Your task to perform on an android device: change notifications settings Image 0: 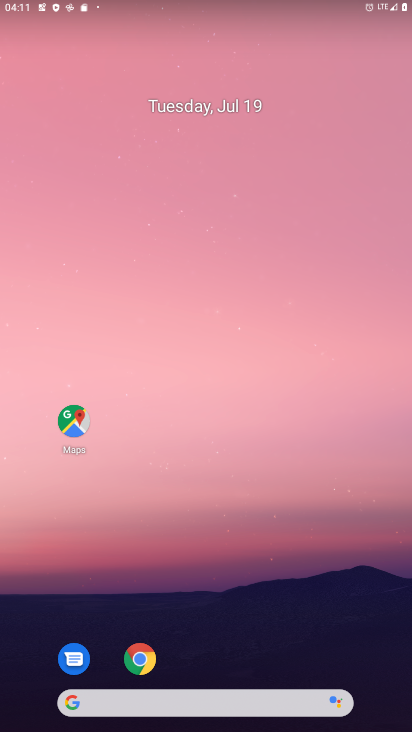
Step 0: press home button
Your task to perform on an android device: change notifications settings Image 1: 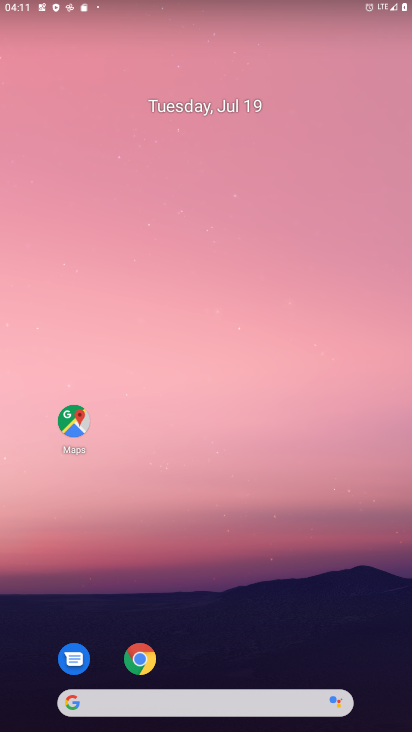
Step 1: drag from (343, 587) to (343, 20)
Your task to perform on an android device: change notifications settings Image 2: 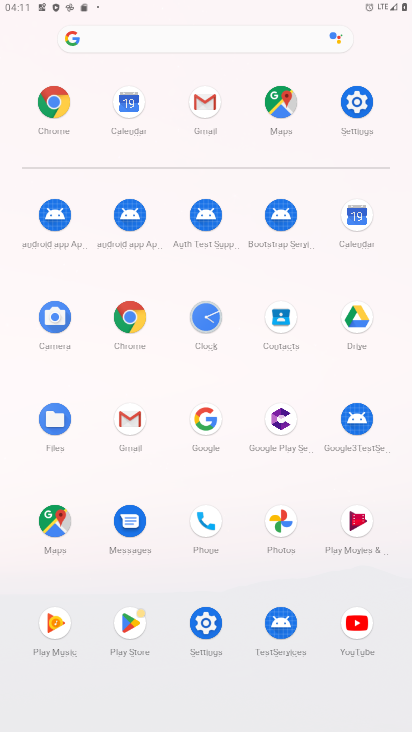
Step 2: click (198, 616)
Your task to perform on an android device: change notifications settings Image 3: 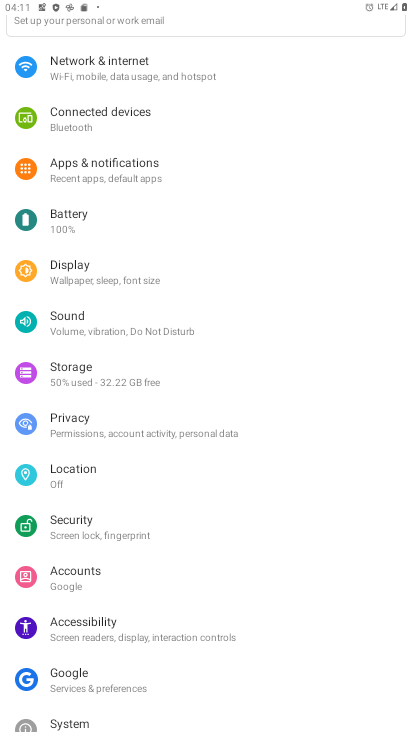
Step 3: click (53, 189)
Your task to perform on an android device: change notifications settings Image 4: 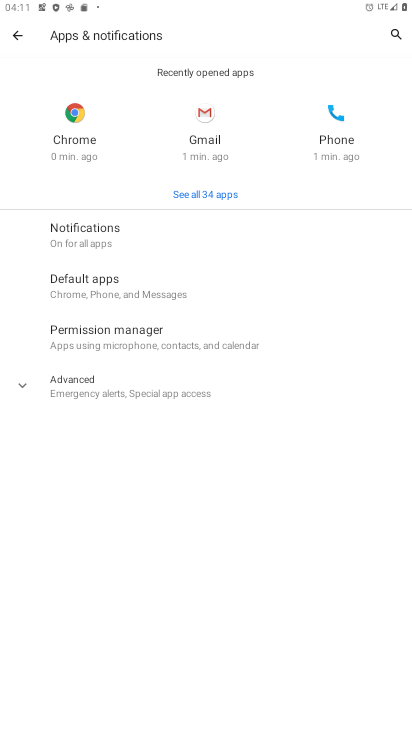
Step 4: click (82, 249)
Your task to perform on an android device: change notifications settings Image 5: 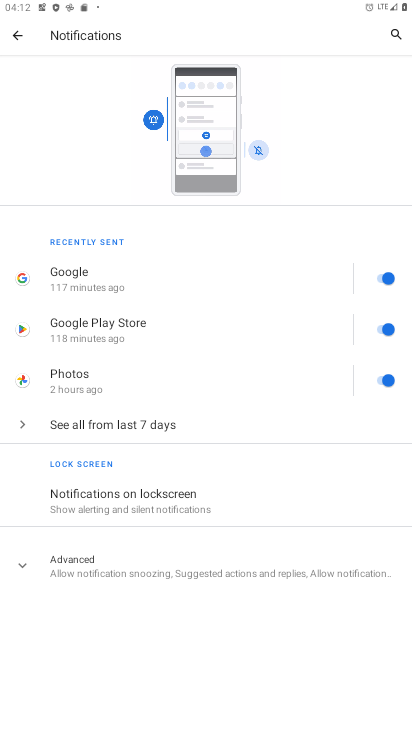
Step 5: click (51, 111)
Your task to perform on an android device: change notifications settings Image 6: 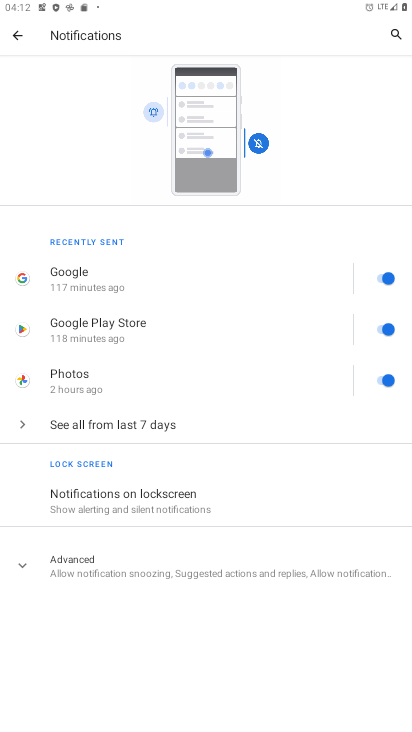
Step 6: click (150, 644)
Your task to perform on an android device: change notifications settings Image 7: 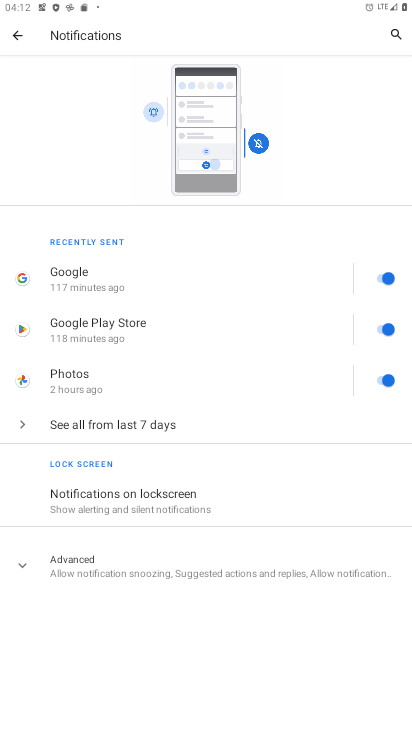
Step 7: click (125, 614)
Your task to perform on an android device: change notifications settings Image 8: 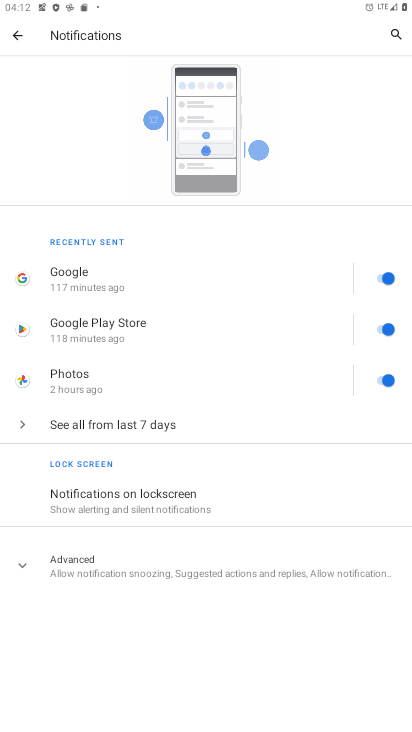
Step 8: click (151, 566)
Your task to perform on an android device: change notifications settings Image 9: 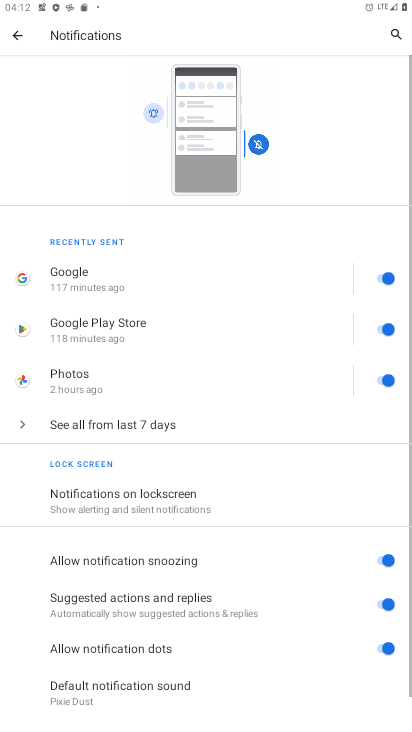
Step 9: click (159, 566)
Your task to perform on an android device: change notifications settings Image 10: 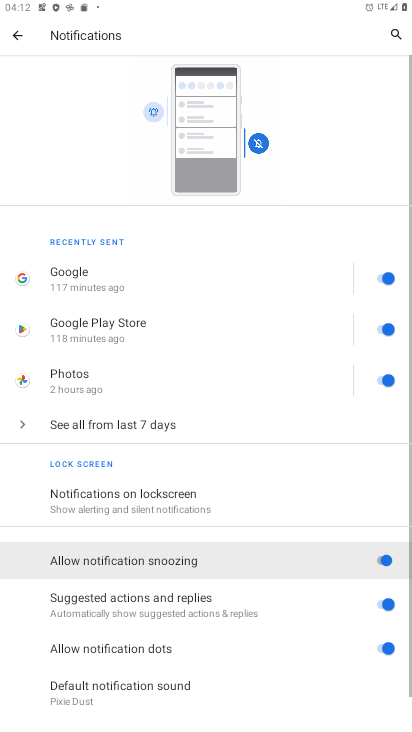
Step 10: click (168, 594)
Your task to perform on an android device: change notifications settings Image 11: 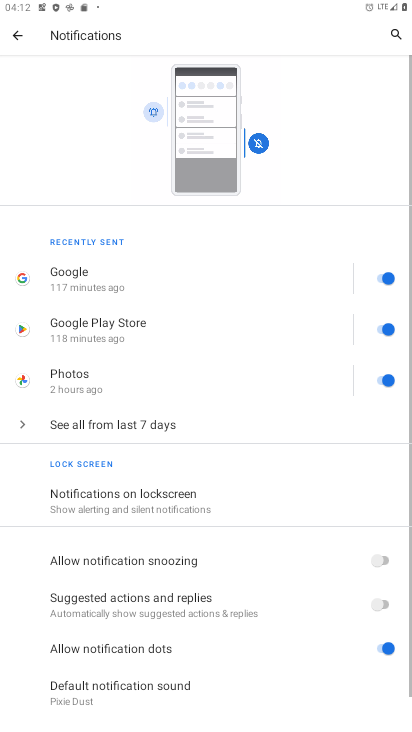
Step 11: click (186, 665)
Your task to perform on an android device: change notifications settings Image 12: 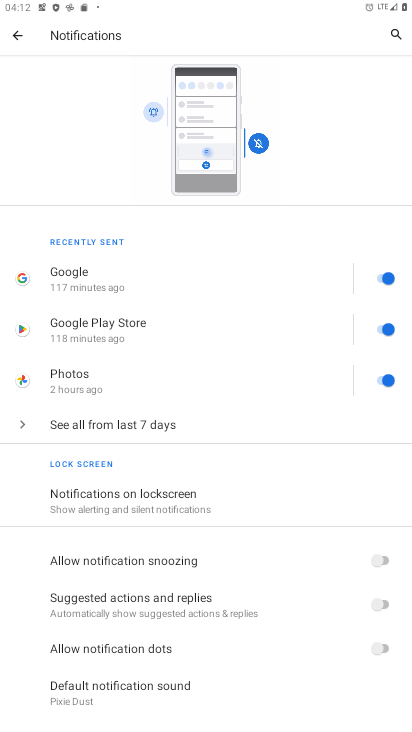
Step 12: task complete